Your task to perform on an android device: change timer sound Image 0: 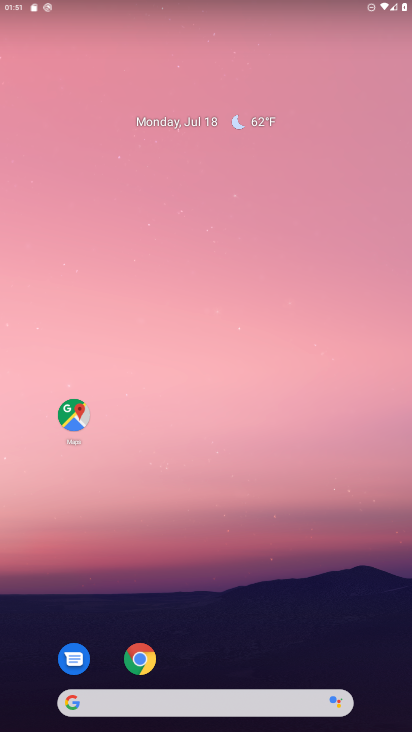
Step 0: drag from (253, 646) to (292, 124)
Your task to perform on an android device: change timer sound Image 1: 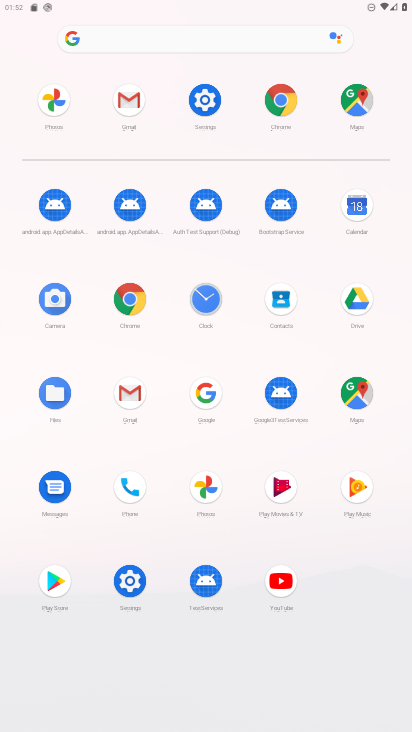
Step 1: click (209, 293)
Your task to perform on an android device: change timer sound Image 2: 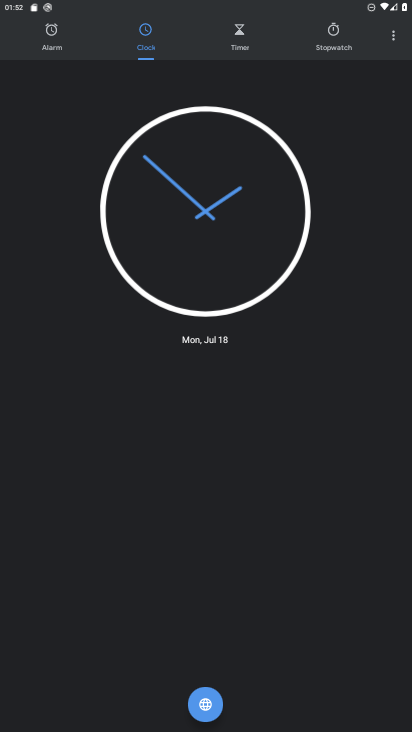
Step 2: click (394, 36)
Your task to perform on an android device: change timer sound Image 3: 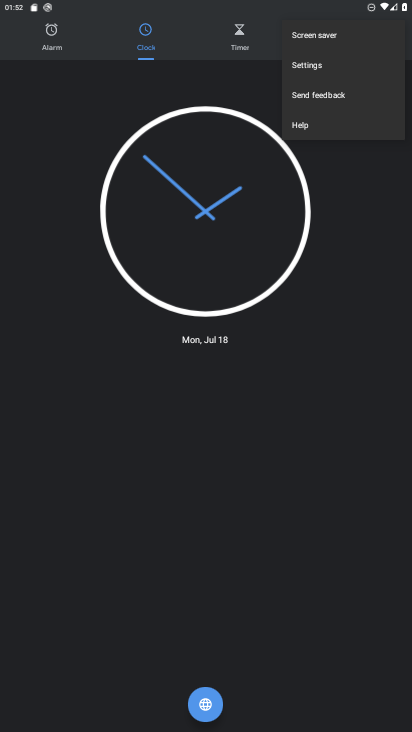
Step 3: click (308, 64)
Your task to perform on an android device: change timer sound Image 4: 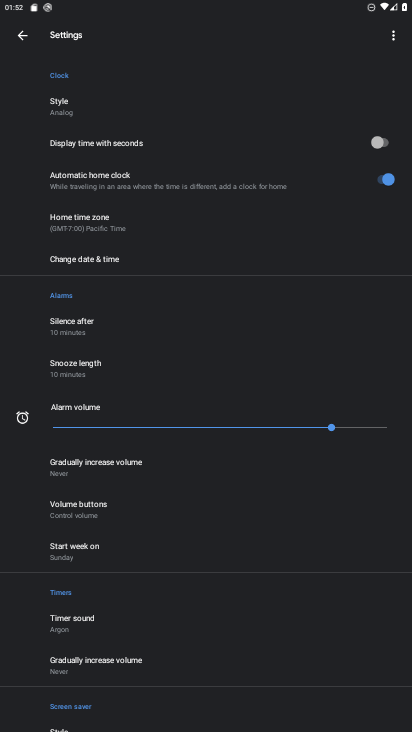
Step 4: click (97, 624)
Your task to perform on an android device: change timer sound Image 5: 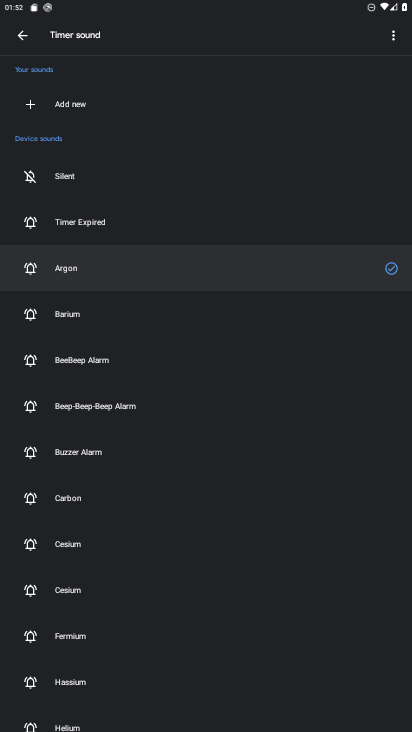
Step 5: click (173, 230)
Your task to perform on an android device: change timer sound Image 6: 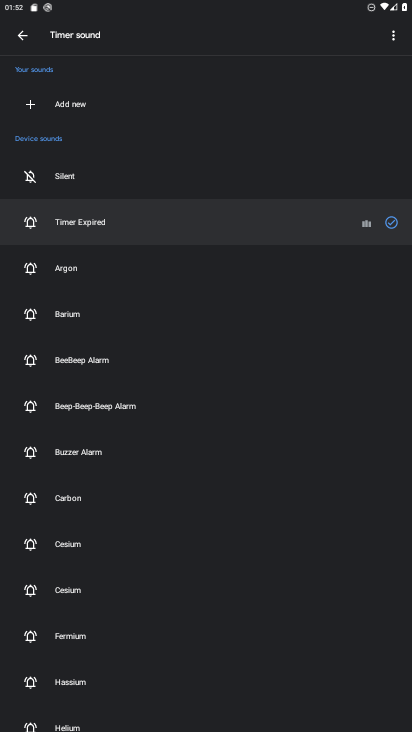
Step 6: task complete